Your task to perform on an android device: Empty the shopping cart on amazon.com. Image 0: 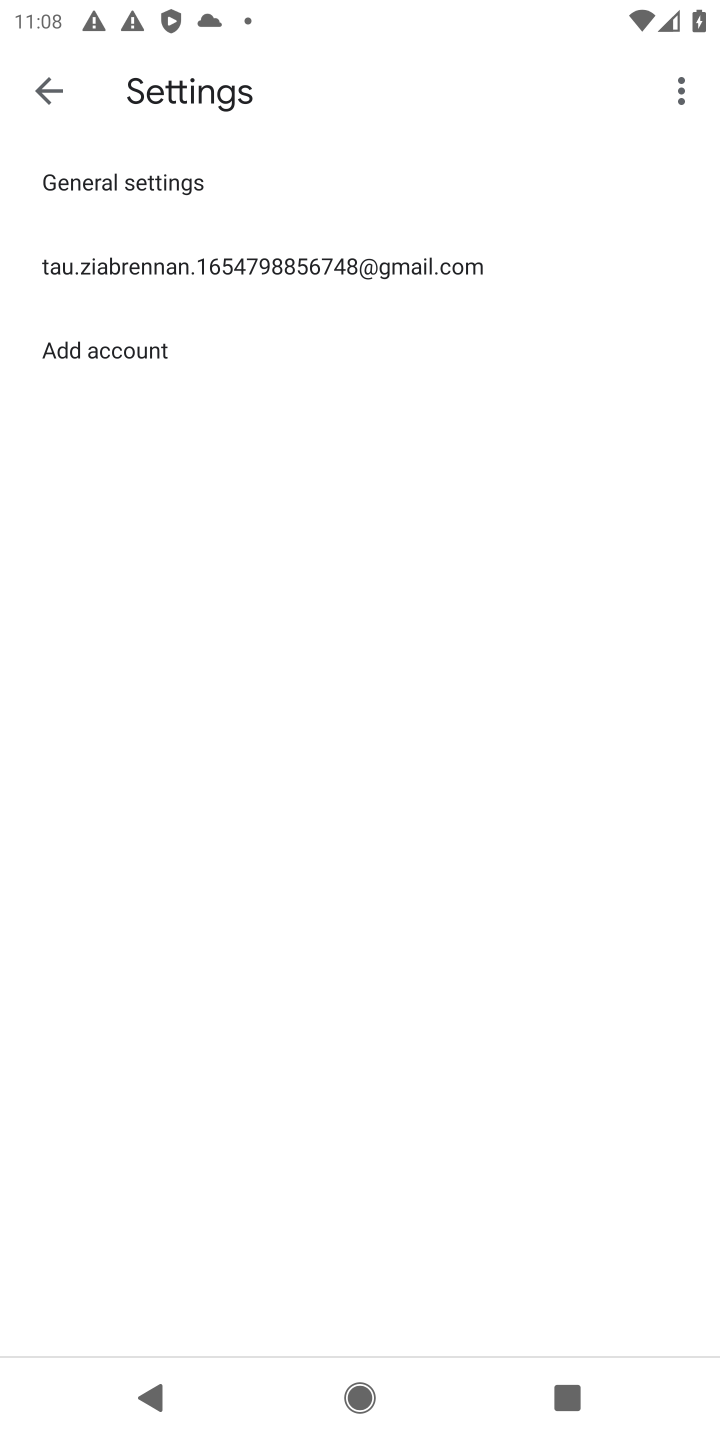
Step 0: press home button
Your task to perform on an android device: Empty the shopping cart on amazon.com. Image 1: 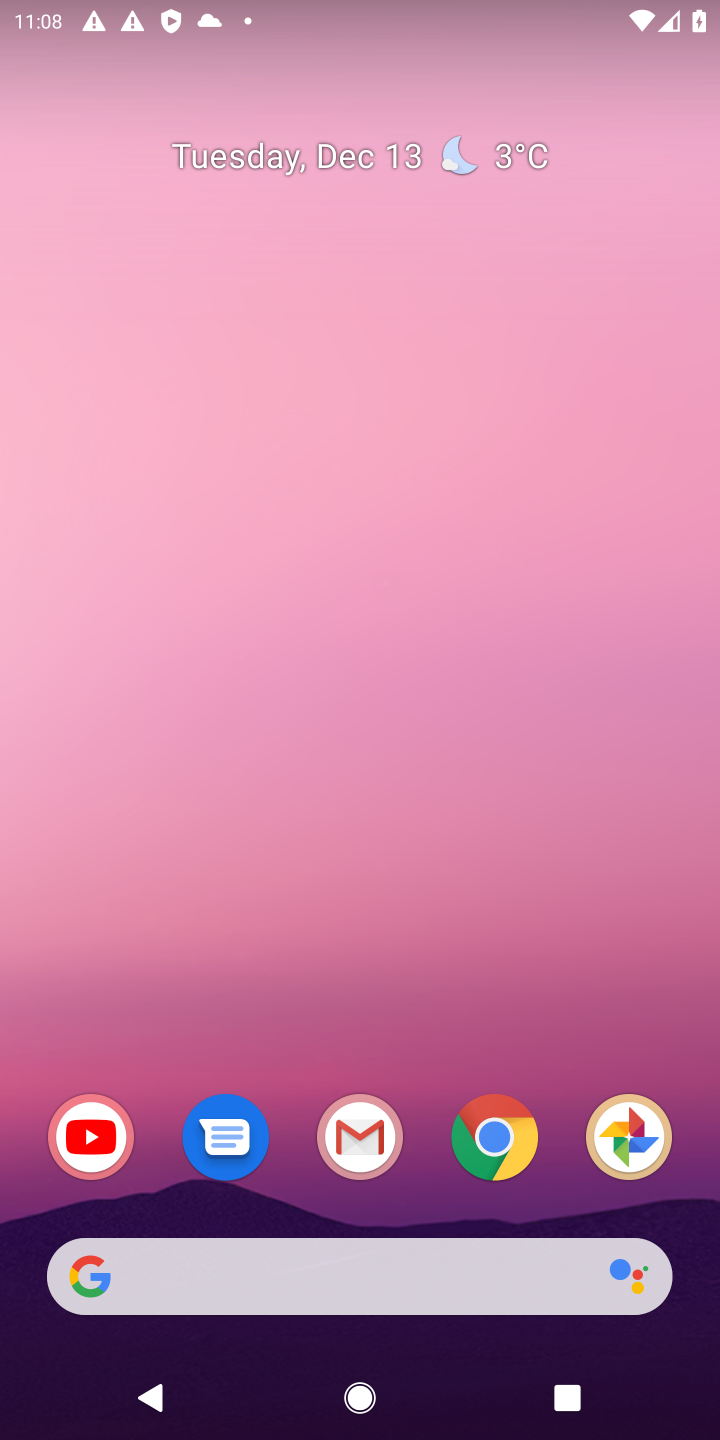
Step 1: click (500, 1136)
Your task to perform on an android device: Empty the shopping cart on amazon.com. Image 2: 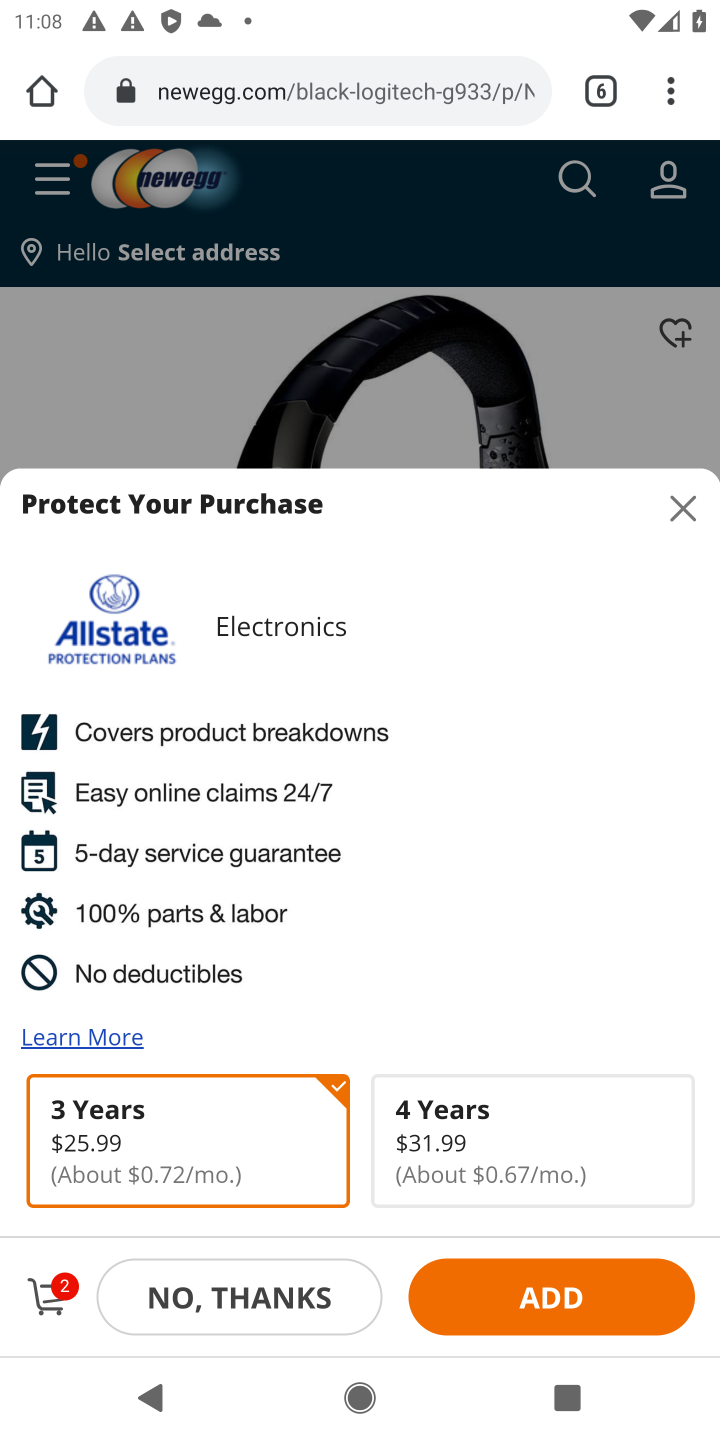
Step 2: click (599, 98)
Your task to perform on an android device: Empty the shopping cart on amazon.com. Image 3: 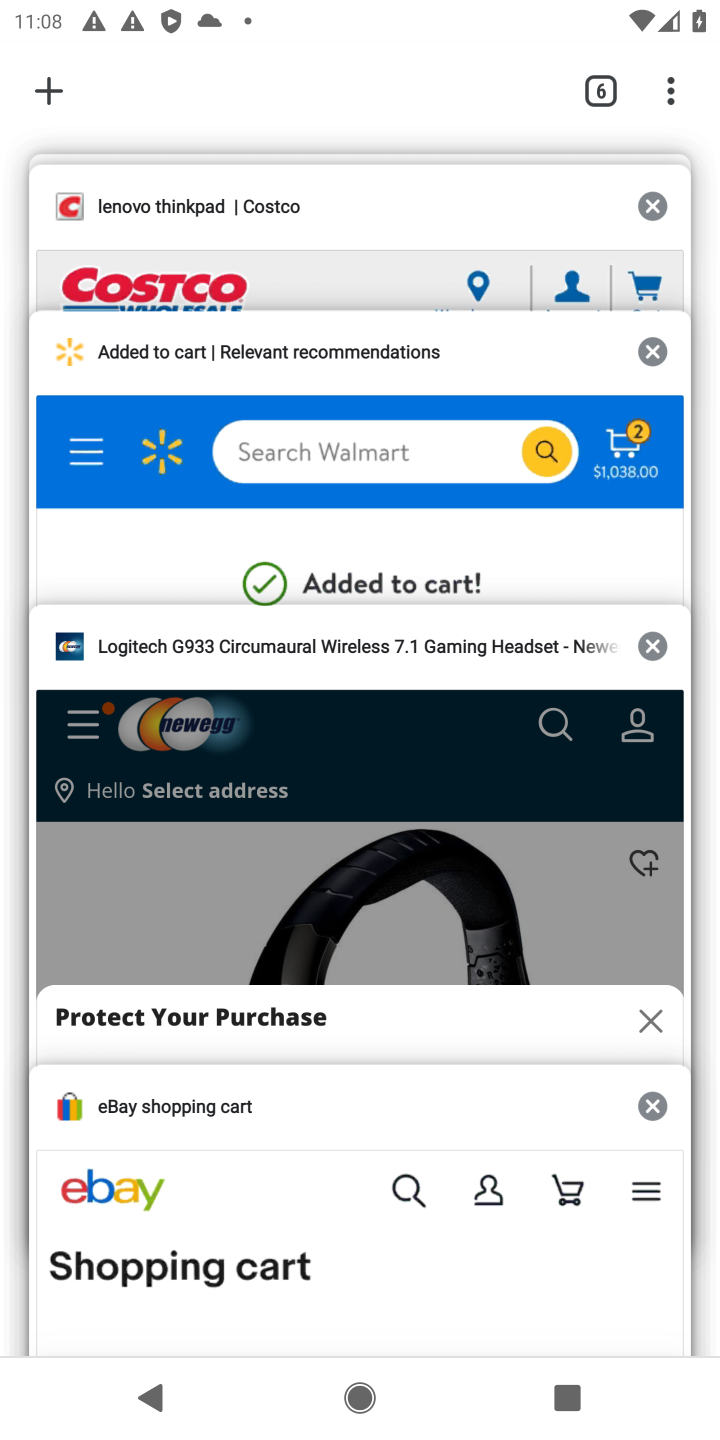
Step 3: drag from (287, 211) to (221, 673)
Your task to perform on an android device: Empty the shopping cart on amazon.com. Image 4: 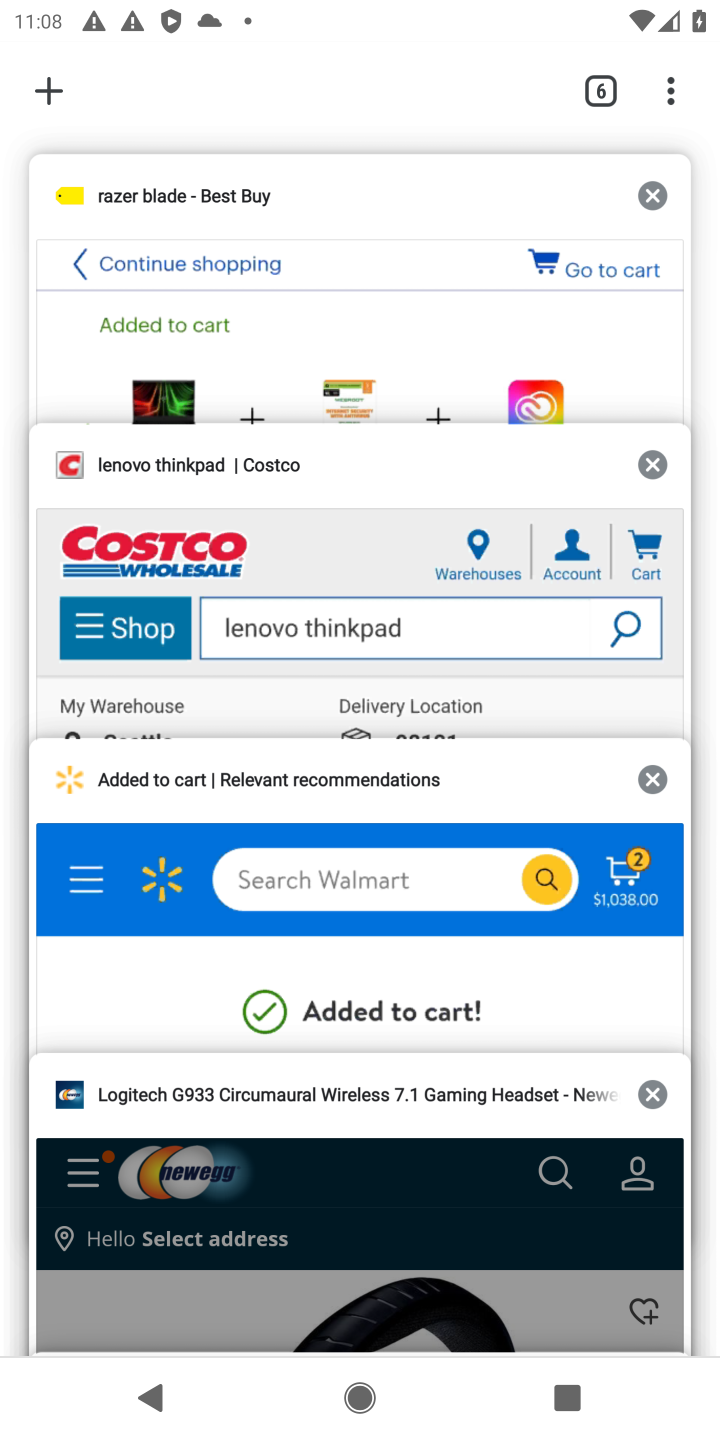
Step 4: click (44, 93)
Your task to perform on an android device: Empty the shopping cart on amazon.com. Image 5: 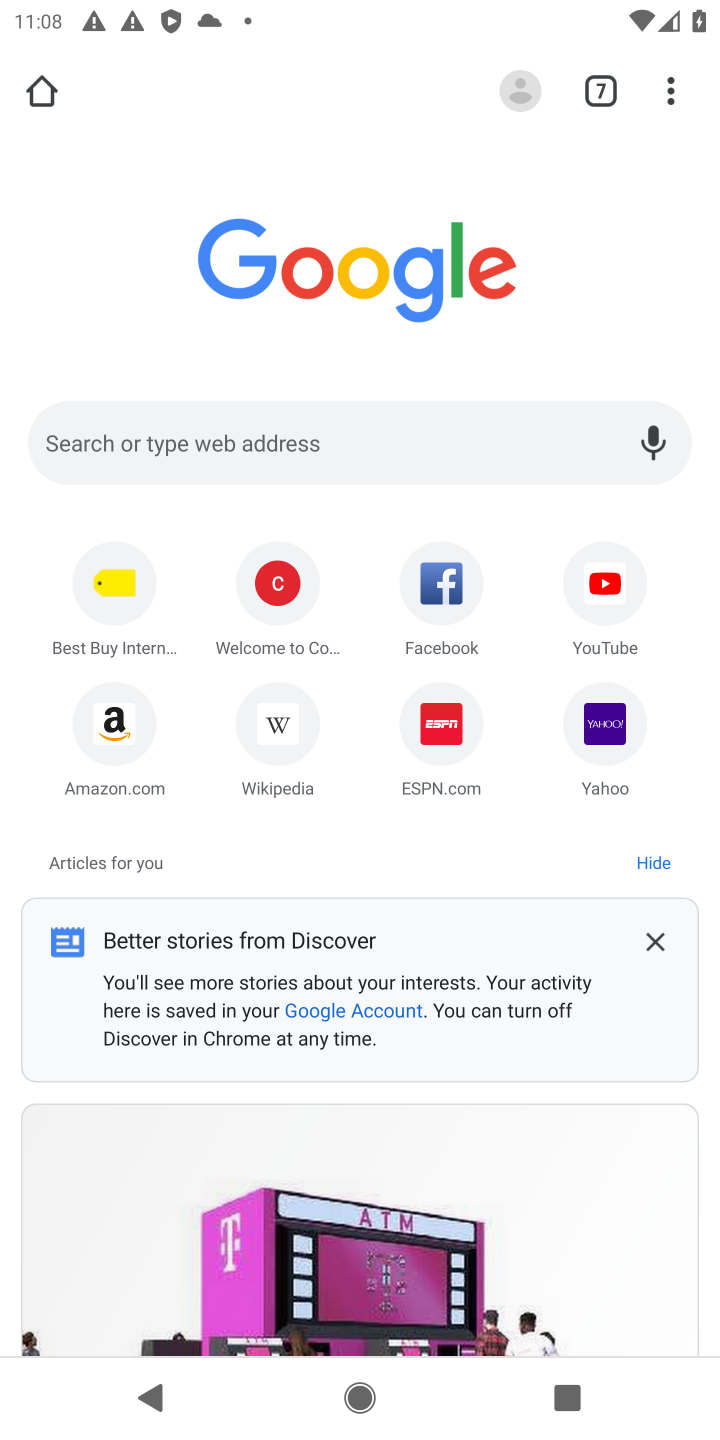
Step 5: click (125, 724)
Your task to perform on an android device: Empty the shopping cart on amazon.com. Image 6: 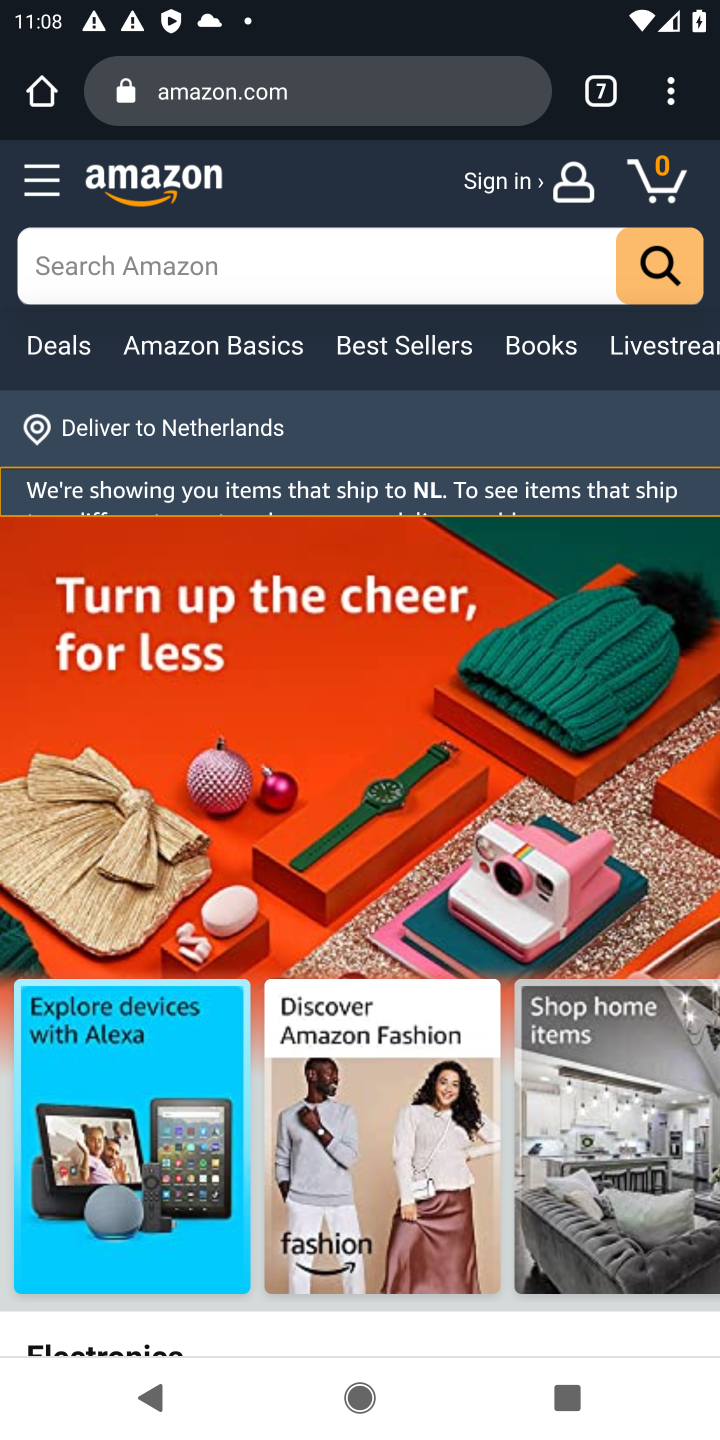
Step 6: click (655, 179)
Your task to perform on an android device: Empty the shopping cart on amazon.com. Image 7: 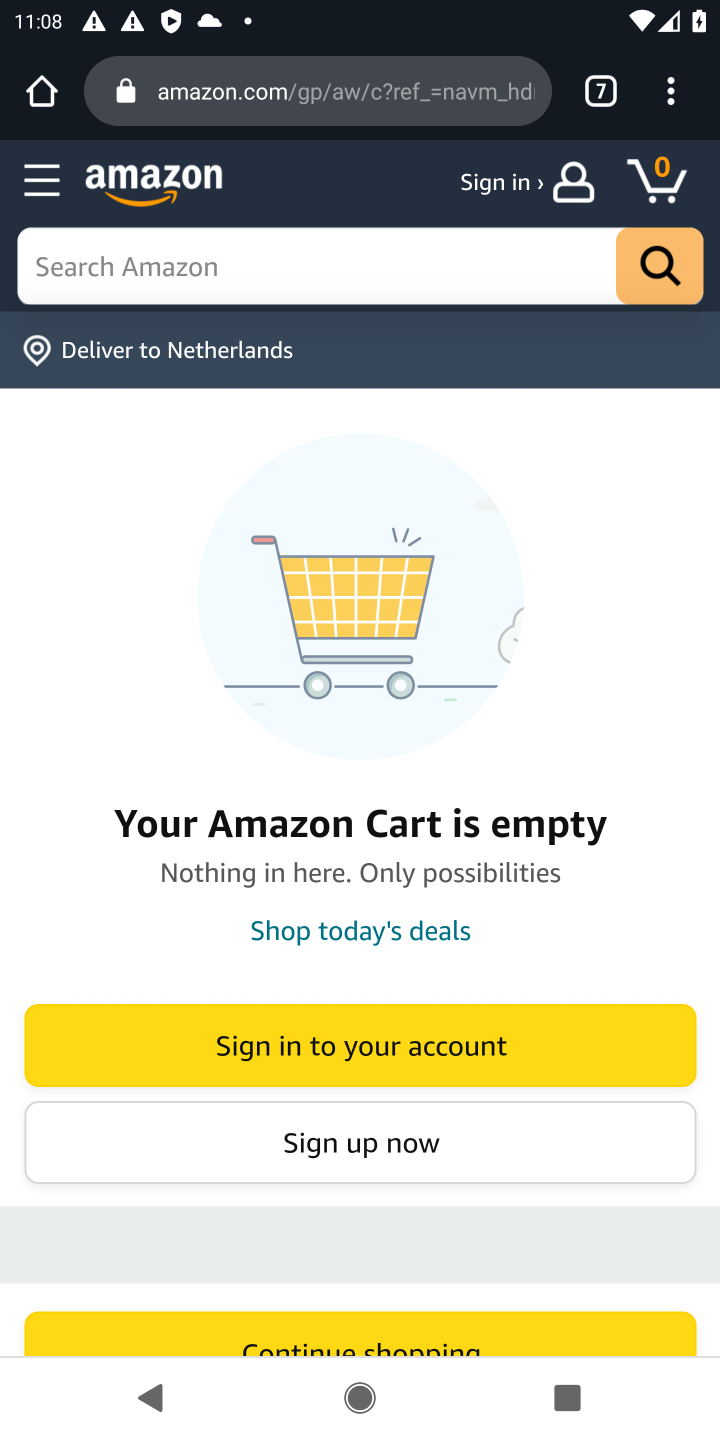
Step 7: task complete